Your task to perform on an android device: Go to network settings Image 0: 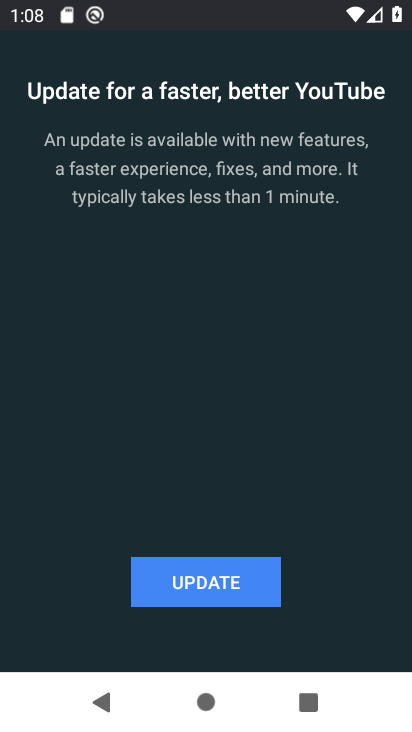
Step 0: press home button
Your task to perform on an android device: Go to network settings Image 1: 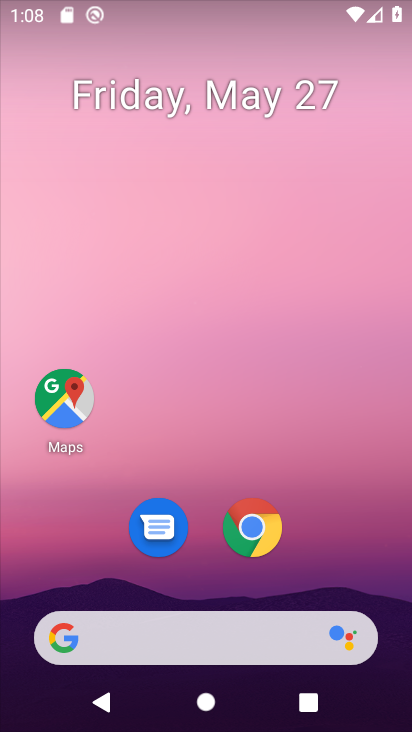
Step 1: task complete